Your task to perform on an android device: allow cookies in the chrome app Image 0: 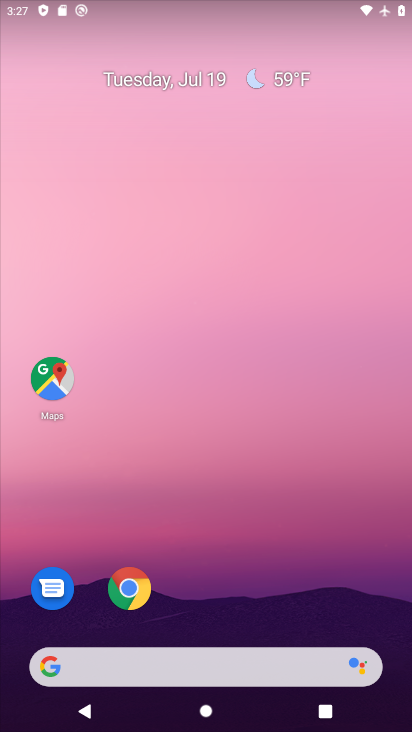
Step 0: press home button
Your task to perform on an android device: allow cookies in the chrome app Image 1: 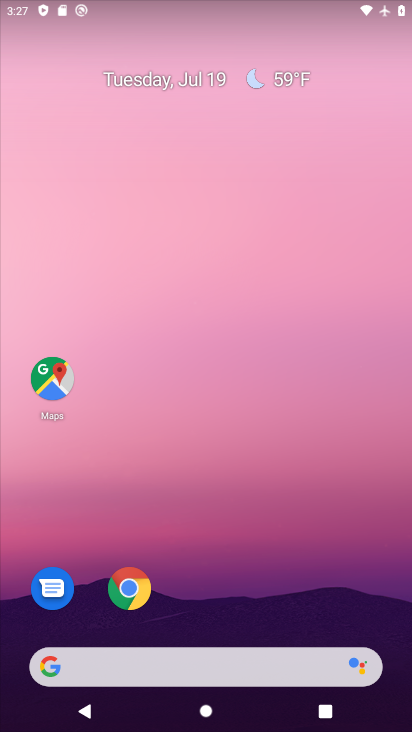
Step 1: drag from (281, 470) to (289, 240)
Your task to perform on an android device: allow cookies in the chrome app Image 2: 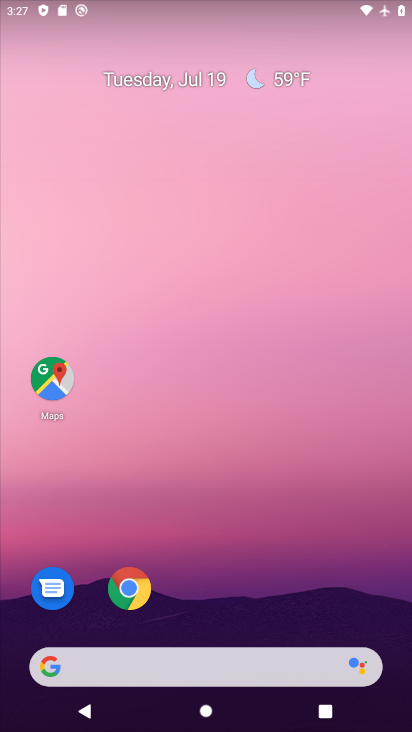
Step 2: drag from (255, 619) to (287, 196)
Your task to perform on an android device: allow cookies in the chrome app Image 3: 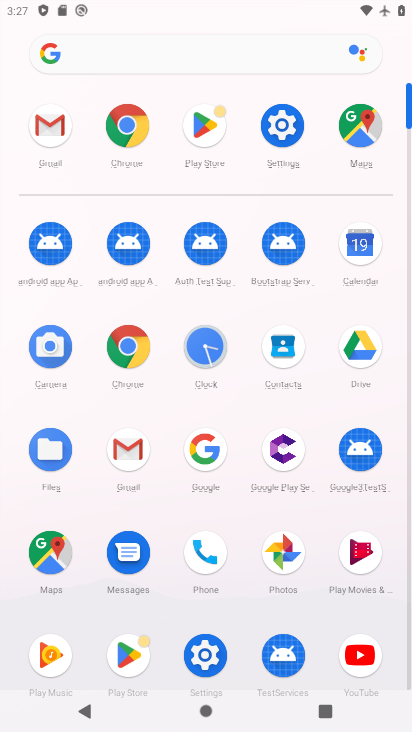
Step 3: click (127, 144)
Your task to perform on an android device: allow cookies in the chrome app Image 4: 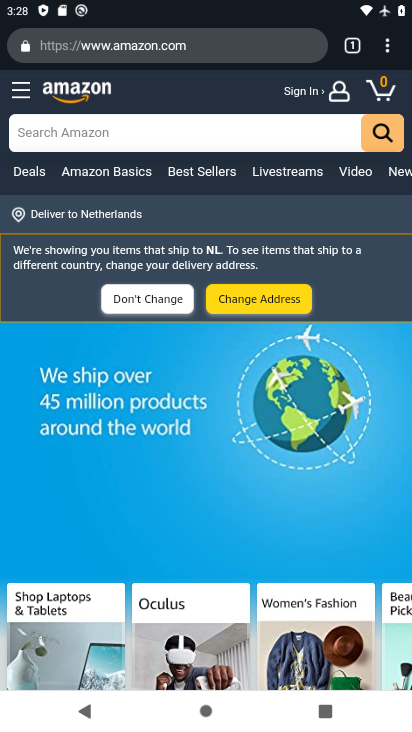
Step 4: drag from (396, 51) to (228, 502)
Your task to perform on an android device: allow cookies in the chrome app Image 5: 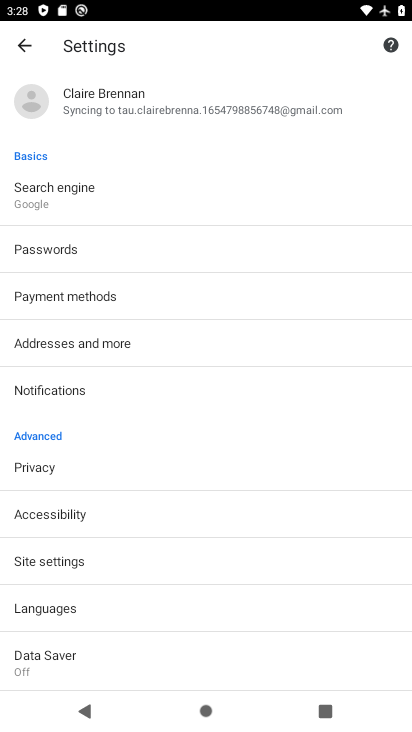
Step 5: click (30, 564)
Your task to perform on an android device: allow cookies in the chrome app Image 6: 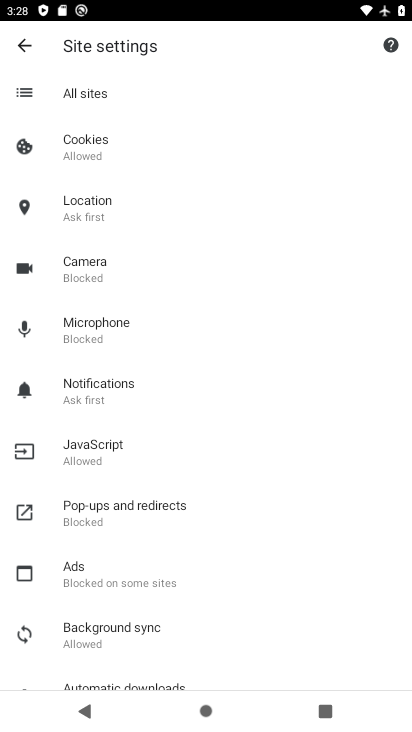
Step 6: click (81, 147)
Your task to perform on an android device: allow cookies in the chrome app Image 7: 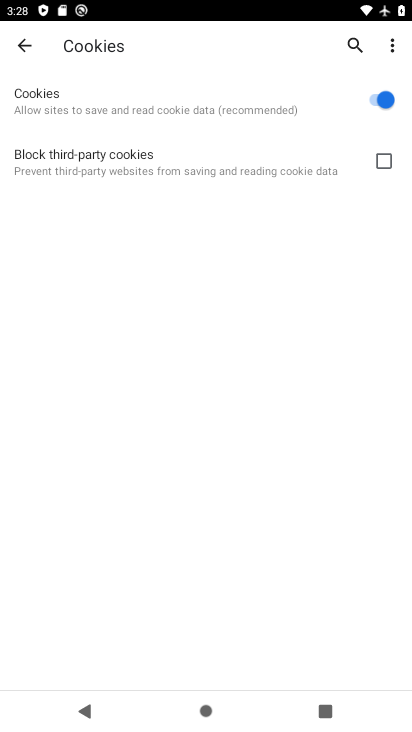
Step 7: task complete